Your task to perform on an android device: turn smart compose on in the gmail app Image 0: 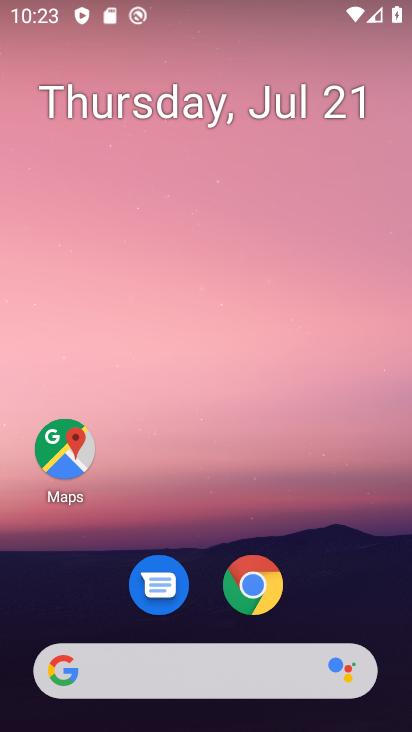
Step 0: drag from (251, 643) to (310, 4)
Your task to perform on an android device: turn smart compose on in the gmail app Image 1: 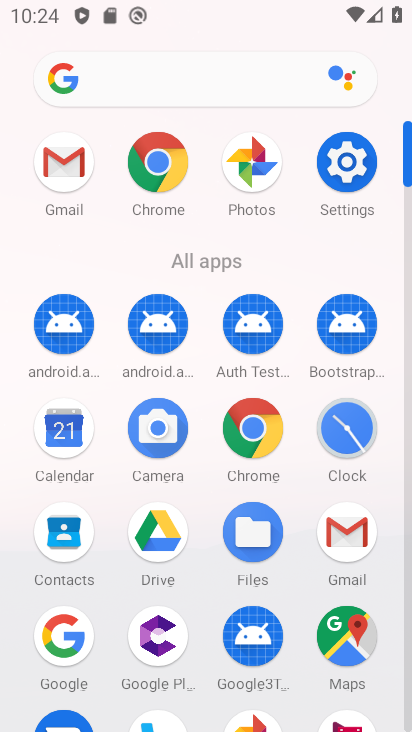
Step 1: click (59, 164)
Your task to perform on an android device: turn smart compose on in the gmail app Image 2: 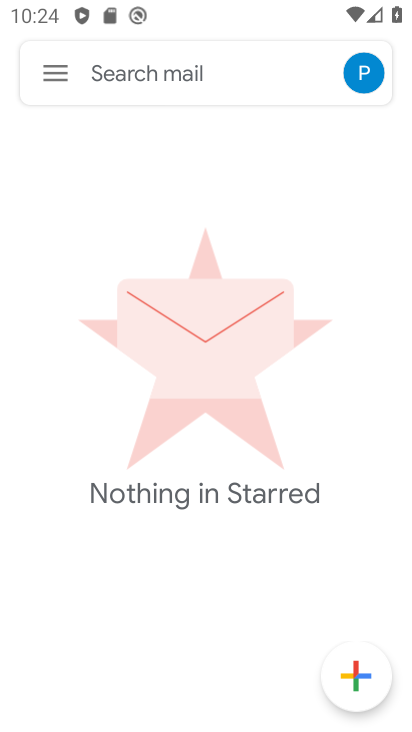
Step 2: click (56, 68)
Your task to perform on an android device: turn smart compose on in the gmail app Image 3: 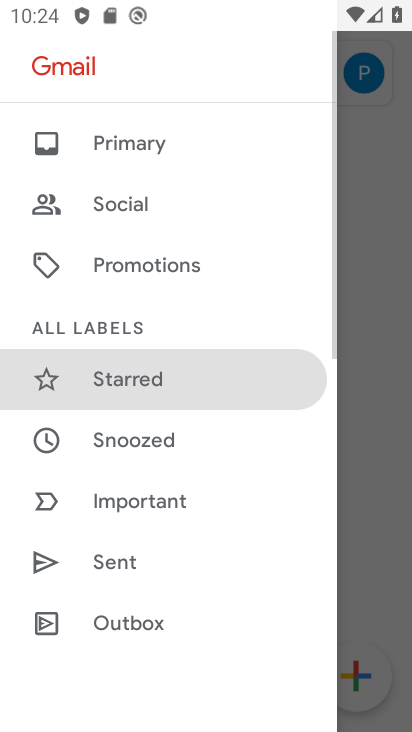
Step 3: drag from (205, 629) to (214, 9)
Your task to perform on an android device: turn smart compose on in the gmail app Image 4: 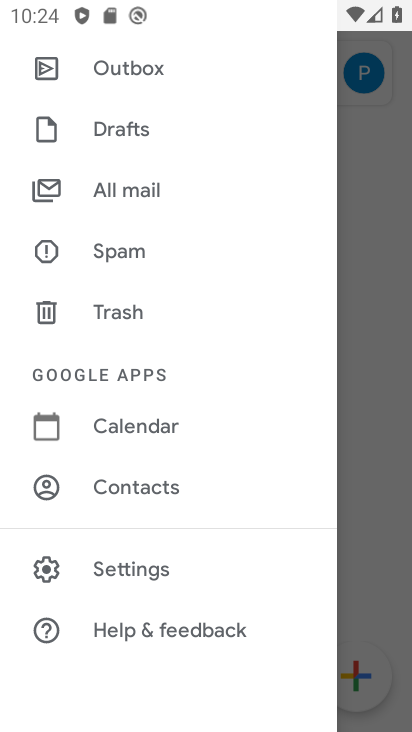
Step 4: drag from (193, 567) to (237, 291)
Your task to perform on an android device: turn smart compose on in the gmail app Image 5: 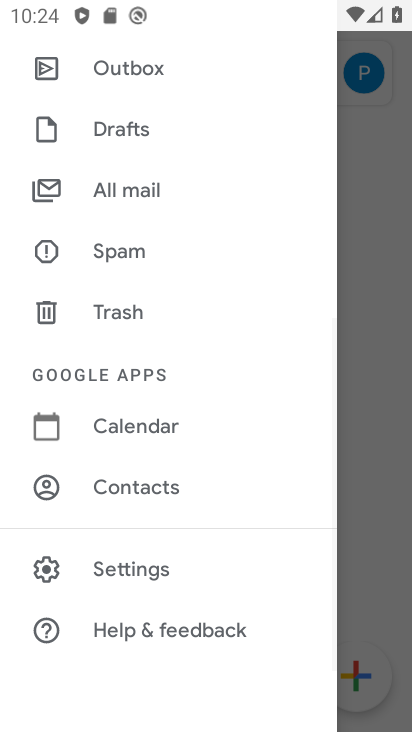
Step 5: click (154, 568)
Your task to perform on an android device: turn smart compose on in the gmail app Image 6: 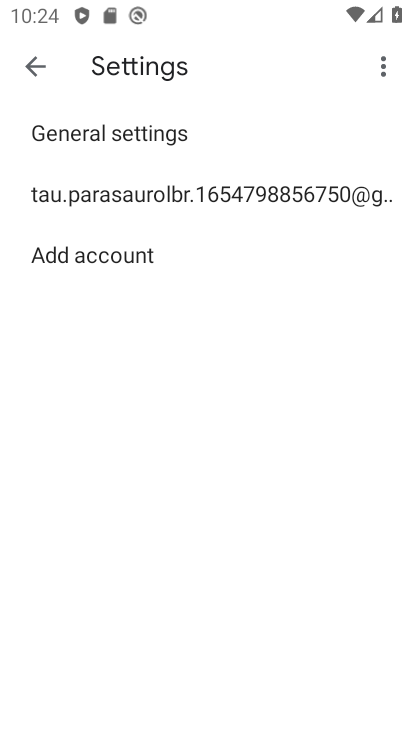
Step 6: click (221, 185)
Your task to perform on an android device: turn smart compose on in the gmail app Image 7: 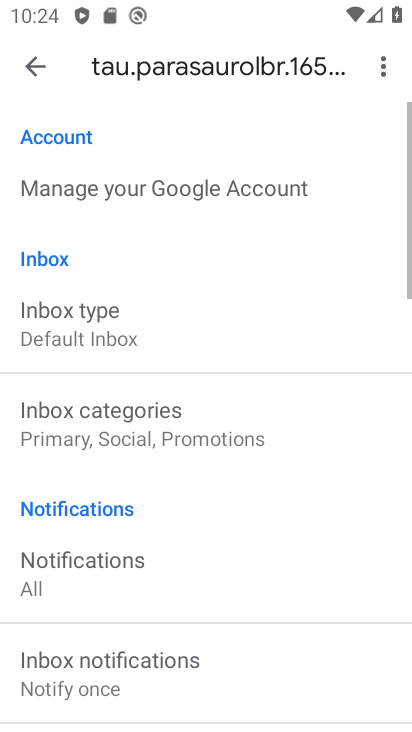
Step 7: task complete